Your task to perform on an android device: Go to Android settings Image 0: 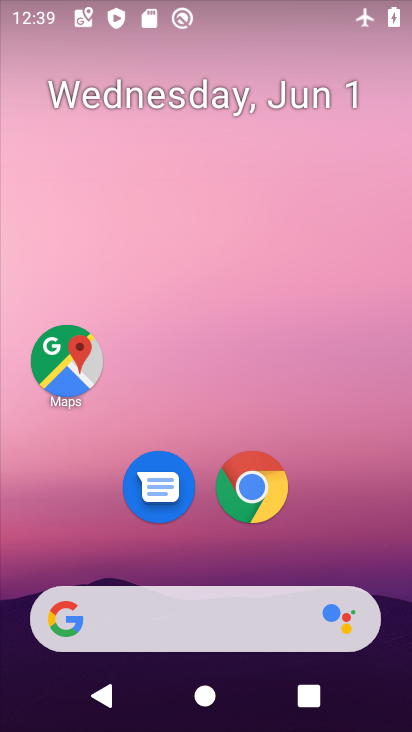
Step 0: drag from (312, 533) to (305, 199)
Your task to perform on an android device: Go to Android settings Image 1: 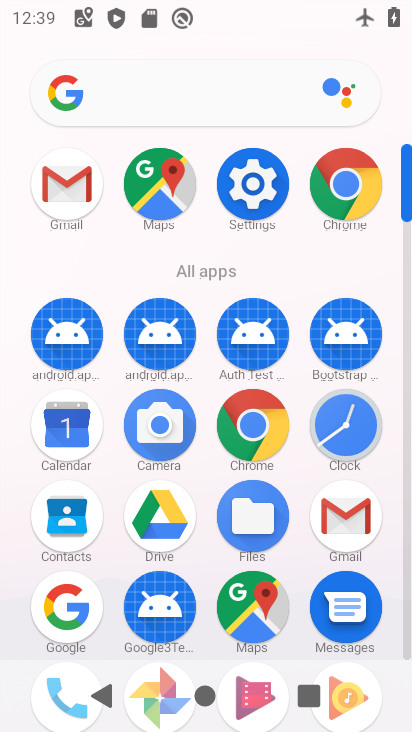
Step 1: click (235, 175)
Your task to perform on an android device: Go to Android settings Image 2: 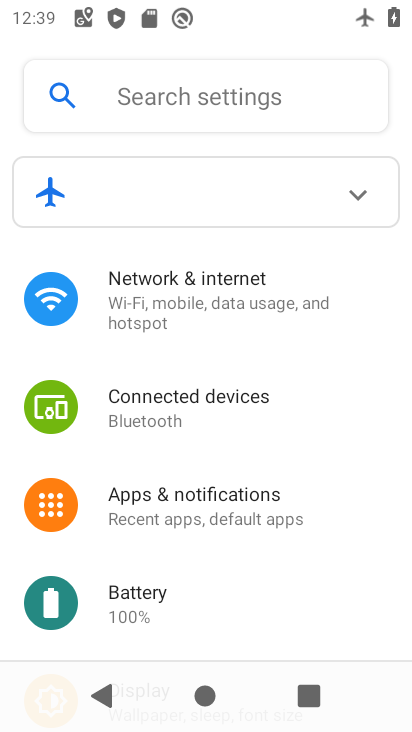
Step 2: click (143, 290)
Your task to perform on an android device: Go to Android settings Image 3: 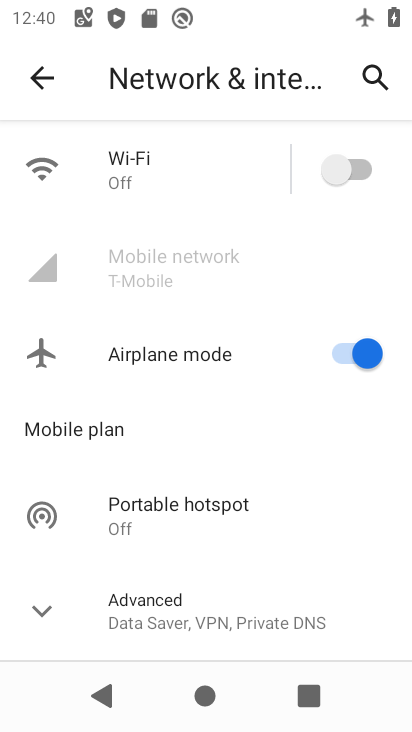
Step 3: task complete